Your task to perform on an android device: Open calendar and show me the fourth week of next month Image 0: 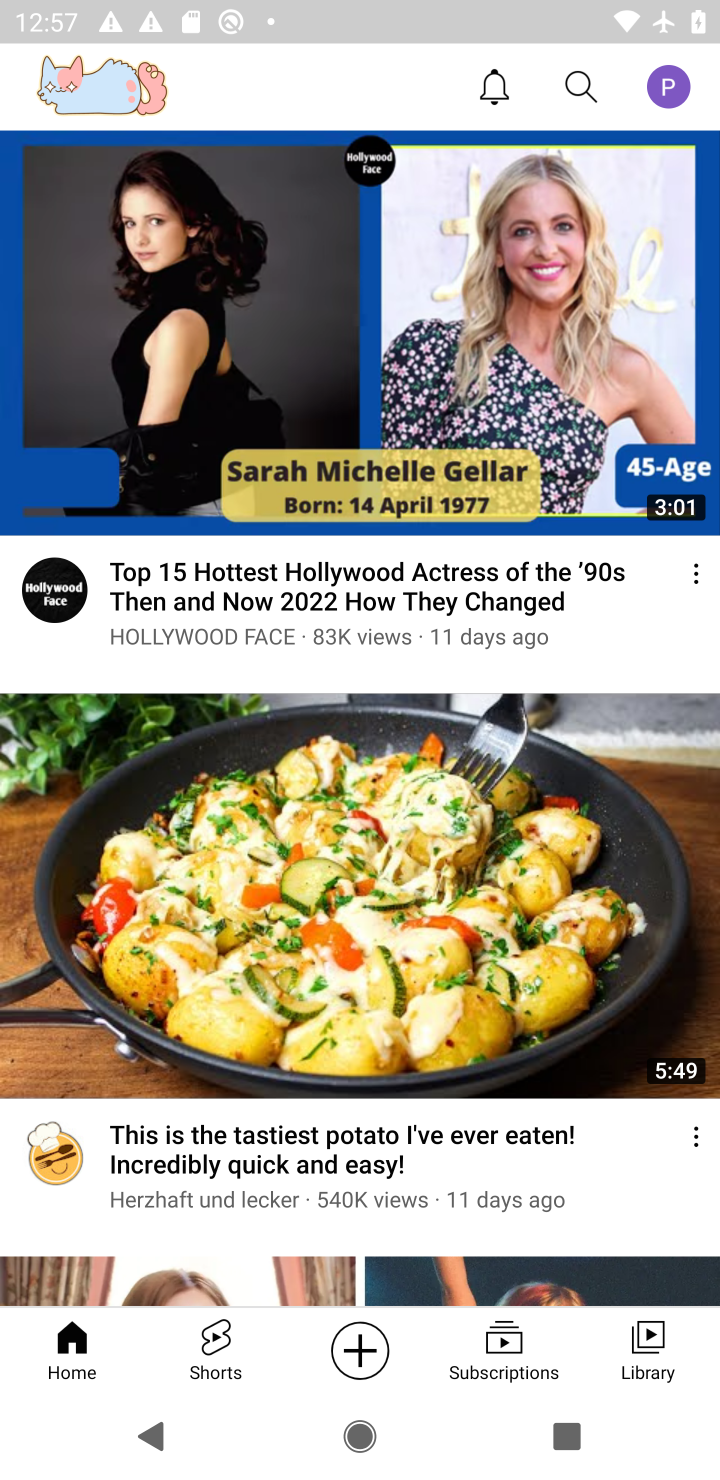
Step 0: task complete